Your task to perform on an android device: Search for Italian restaurants on Maps Image 0: 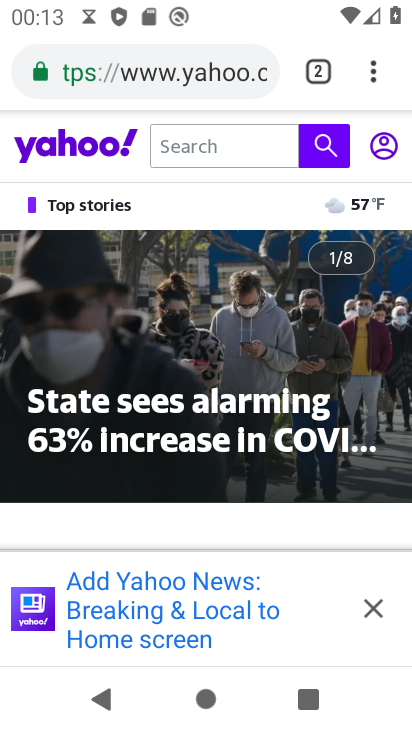
Step 0: press home button
Your task to perform on an android device: Search for Italian restaurants on Maps Image 1: 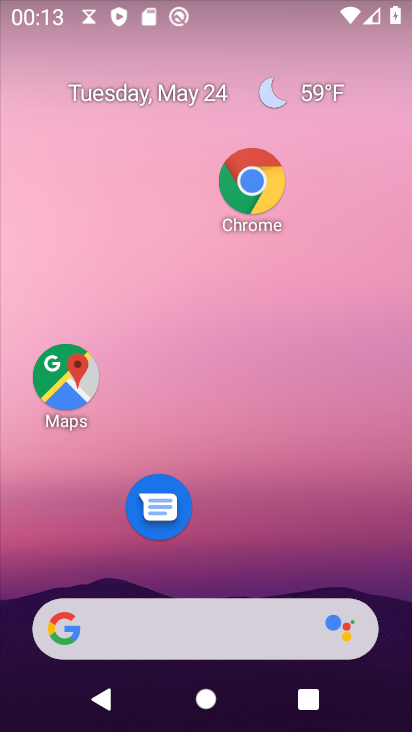
Step 1: click (69, 373)
Your task to perform on an android device: Search for Italian restaurants on Maps Image 2: 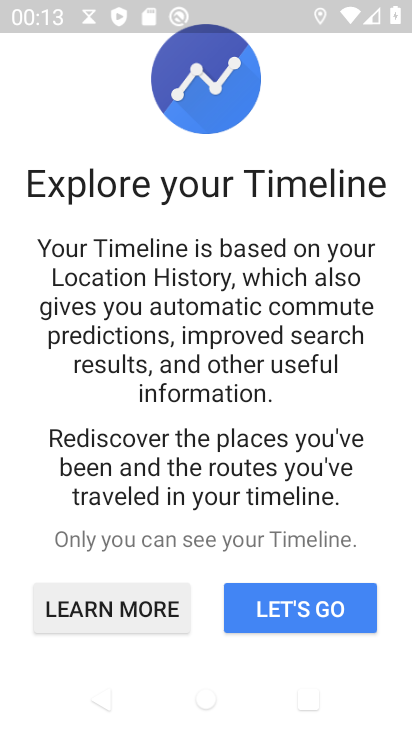
Step 2: drag from (278, 494) to (279, 253)
Your task to perform on an android device: Search for Italian restaurants on Maps Image 3: 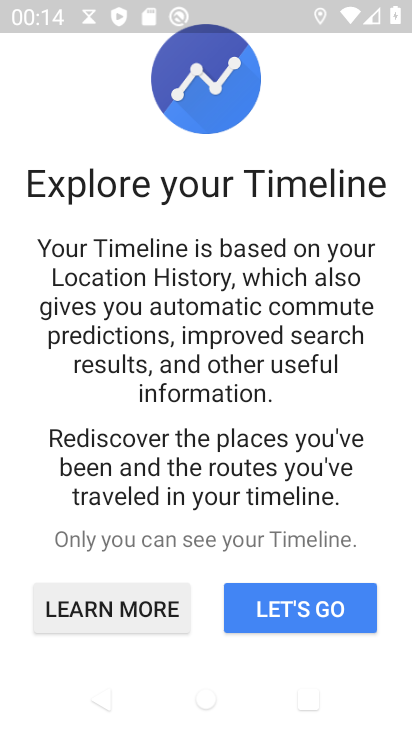
Step 3: click (295, 606)
Your task to perform on an android device: Search for Italian restaurants on Maps Image 4: 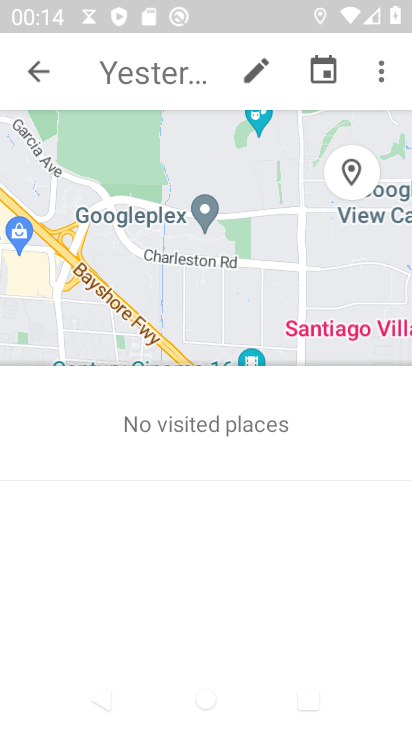
Step 4: click (31, 59)
Your task to perform on an android device: Search for Italian restaurants on Maps Image 5: 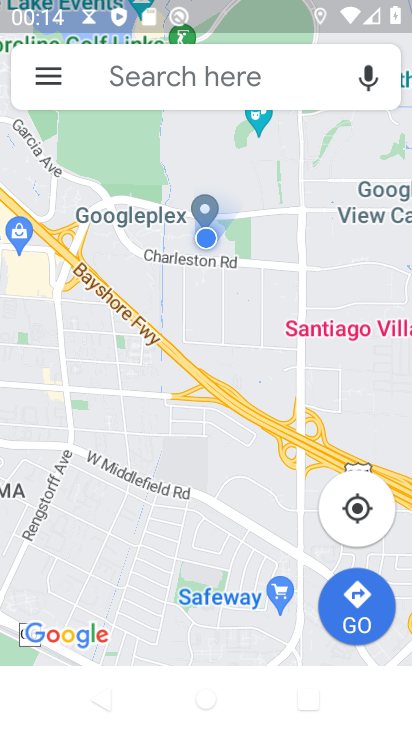
Step 5: click (177, 66)
Your task to perform on an android device: Search for Italian restaurants on Maps Image 6: 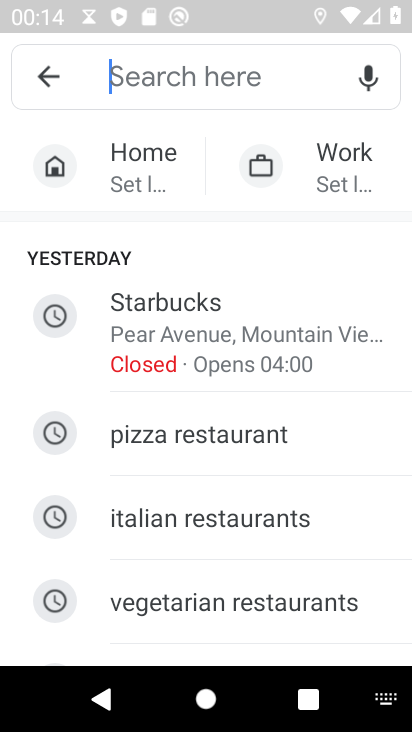
Step 6: drag from (251, 566) to (259, 505)
Your task to perform on an android device: Search for Italian restaurants on Maps Image 7: 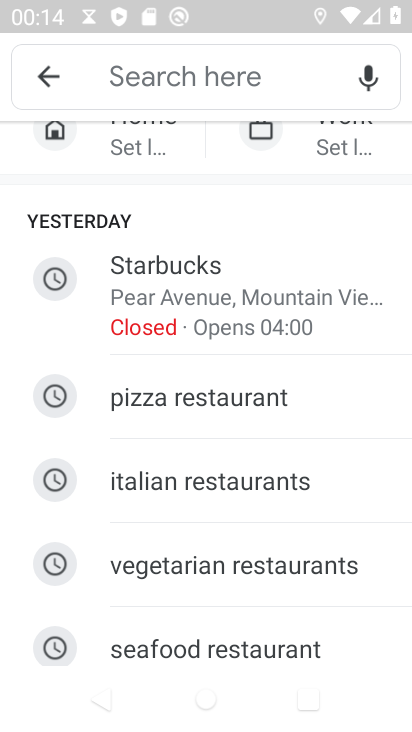
Step 7: click (243, 471)
Your task to perform on an android device: Search for Italian restaurants on Maps Image 8: 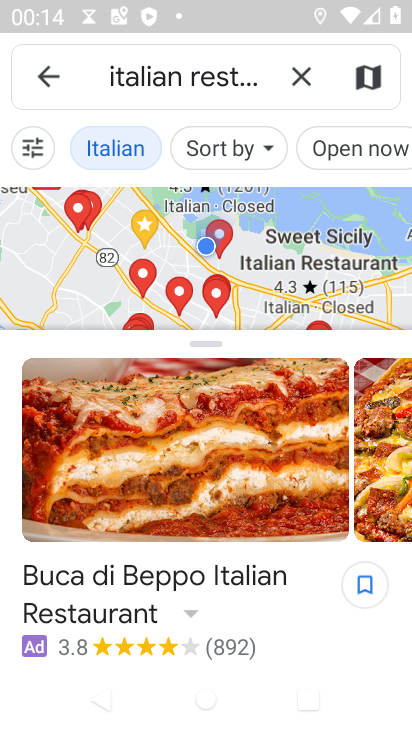
Step 8: task complete